Your task to perform on an android device: Is it going to rain today? Image 0: 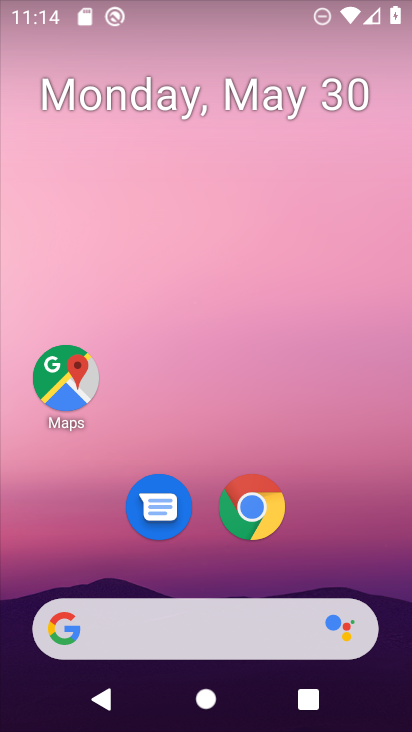
Step 0: drag from (384, 606) to (300, 52)
Your task to perform on an android device: Is it going to rain today? Image 1: 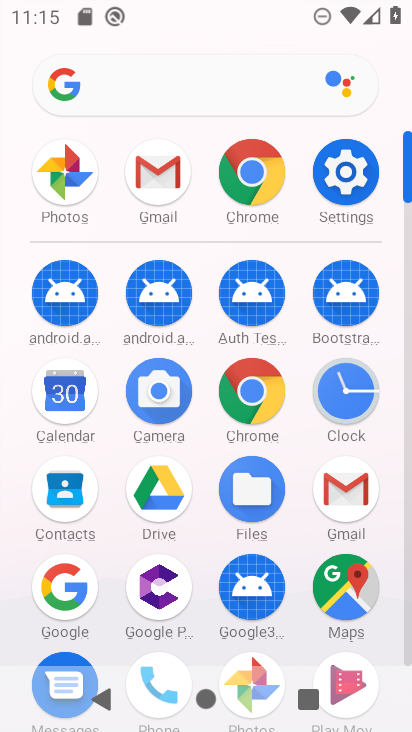
Step 1: click (70, 583)
Your task to perform on an android device: Is it going to rain today? Image 2: 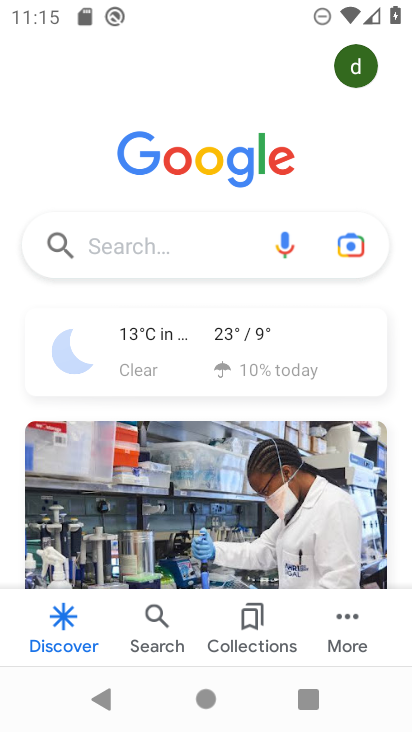
Step 2: click (170, 235)
Your task to perform on an android device: Is it going to rain today? Image 3: 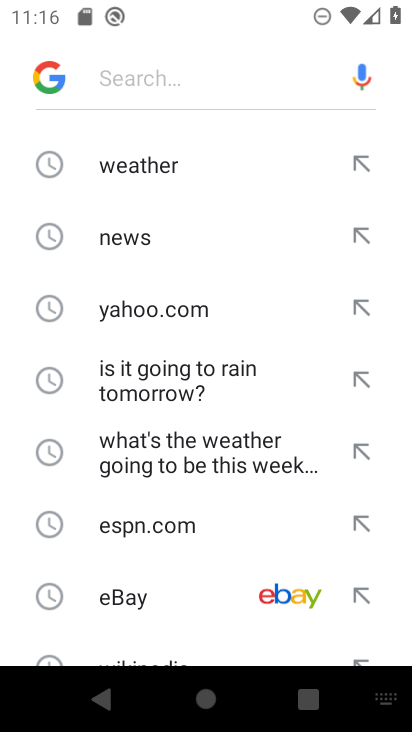
Step 3: drag from (150, 567) to (188, 258)
Your task to perform on an android device: Is it going to rain today? Image 4: 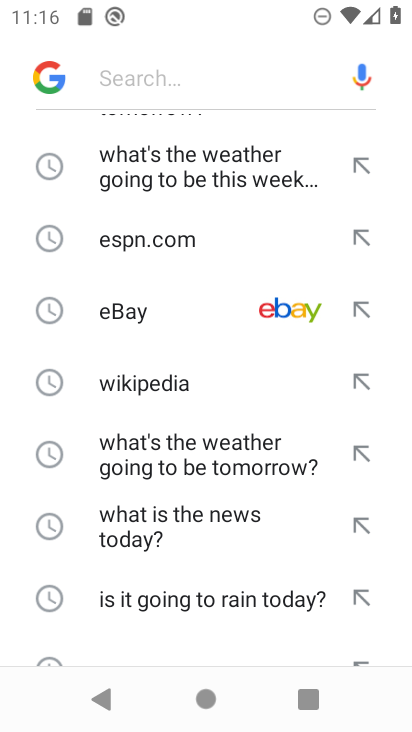
Step 4: click (211, 603)
Your task to perform on an android device: Is it going to rain today? Image 5: 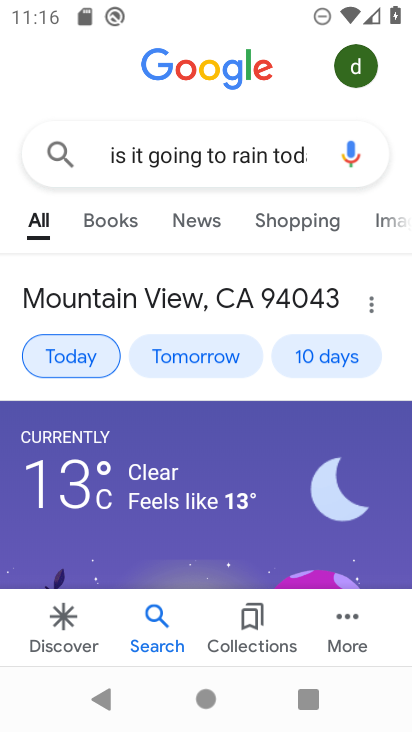
Step 5: task complete